Your task to perform on an android device: Go to Reddit.com Image 0: 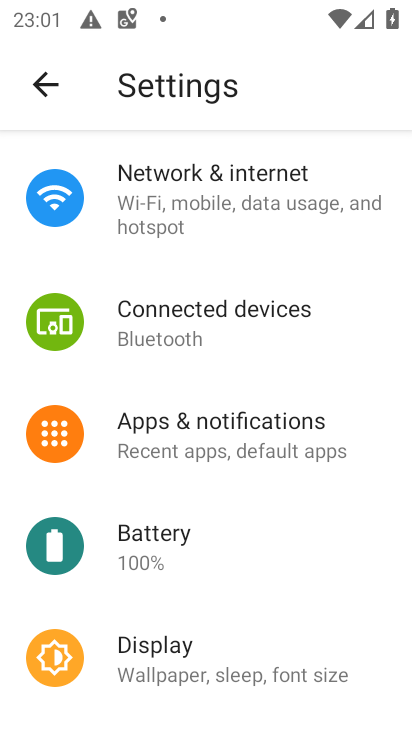
Step 0: press home button
Your task to perform on an android device: Go to Reddit.com Image 1: 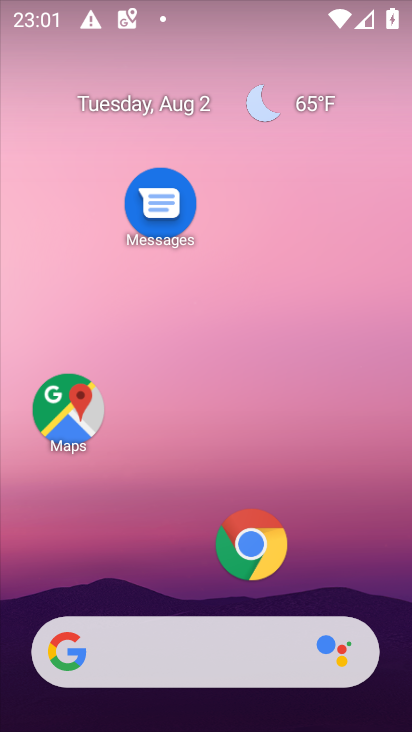
Step 1: click (260, 572)
Your task to perform on an android device: Go to Reddit.com Image 2: 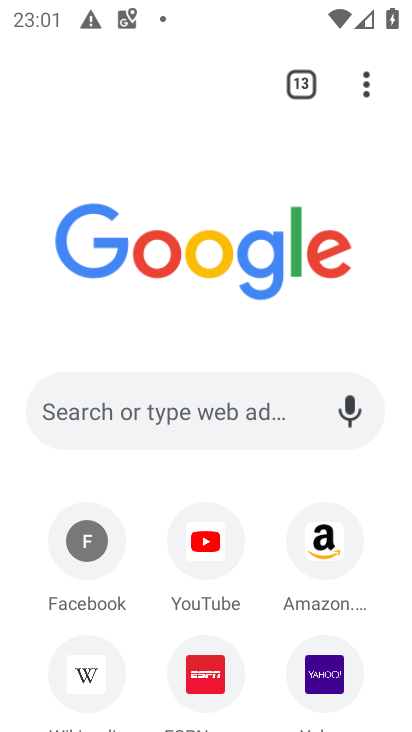
Step 2: click (305, 92)
Your task to perform on an android device: Go to Reddit.com Image 3: 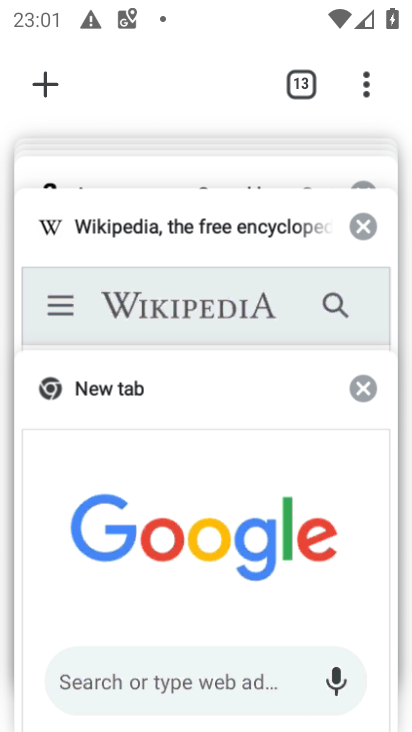
Step 3: click (61, 82)
Your task to perform on an android device: Go to Reddit.com Image 4: 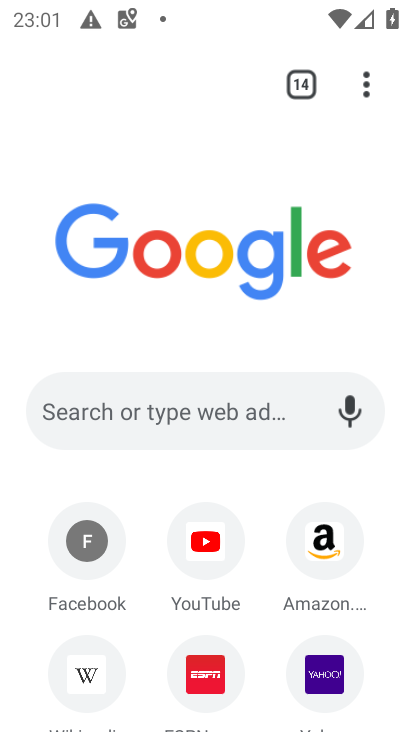
Step 4: click (295, 82)
Your task to perform on an android device: Go to Reddit.com Image 5: 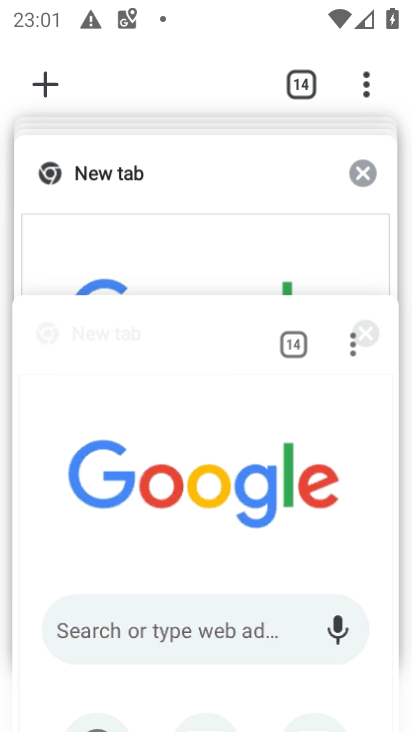
Step 5: click (43, 90)
Your task to perform on an android device: Go to Reddit.com Image 6: 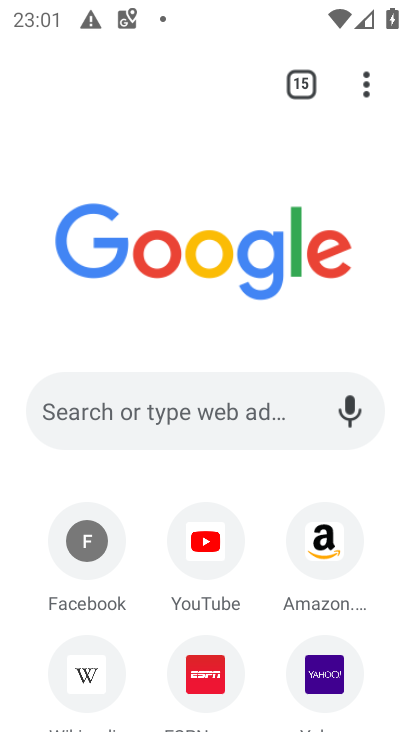
Step 6: click (222, 387)
Your task to perform on an android device: Go to Reddit.com Image 7: 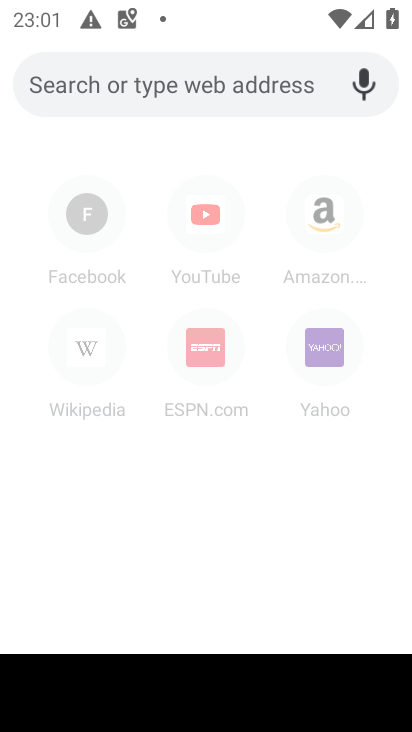
Step 7: type "Reddit.com"
Your task to perform on an android device: Go to Reddit.com Image 8: 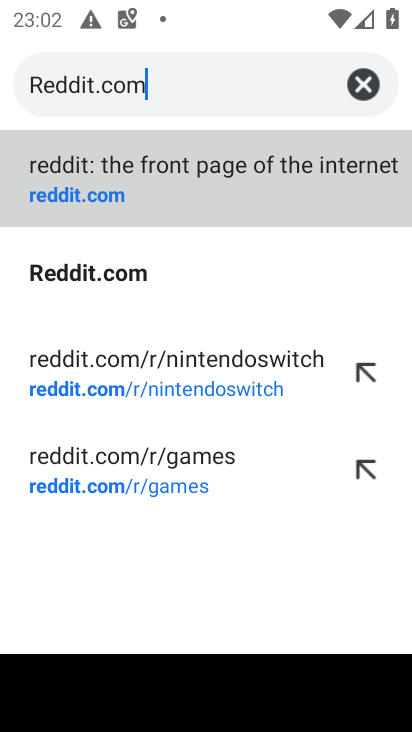
Step 8: type ""
Your task to perform on an android device: Go to Reddit.com Image 9: 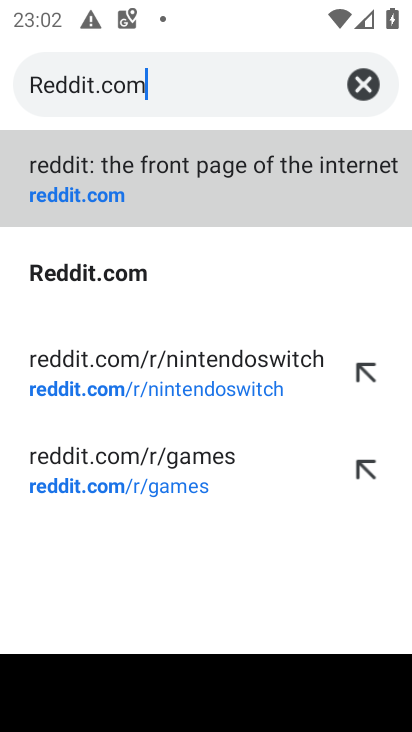
Step 9: click (157, 177)
Your task to perform on an android device: Go to Reddit.com Image 10: 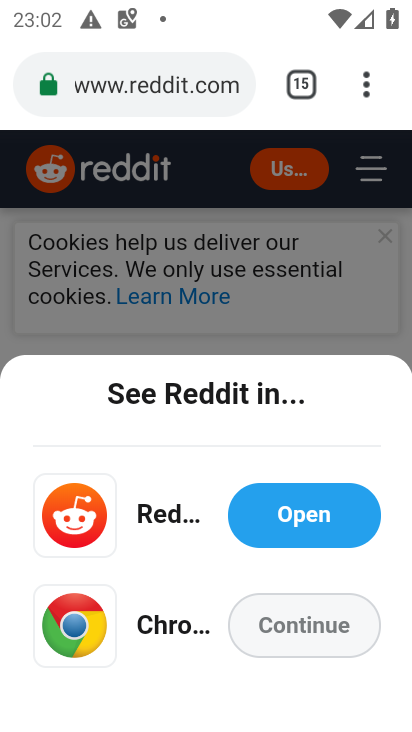
Step 10: click (306, 609)
Your task to perform on an android device: Go to Reddit.com Image 11: 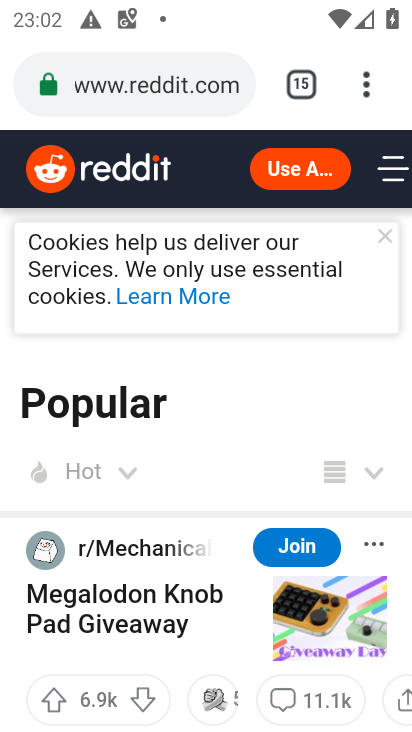
Step 11: task complete